Your task to perform on an android device: Open Youtube and go to "Your channel" Image 0: 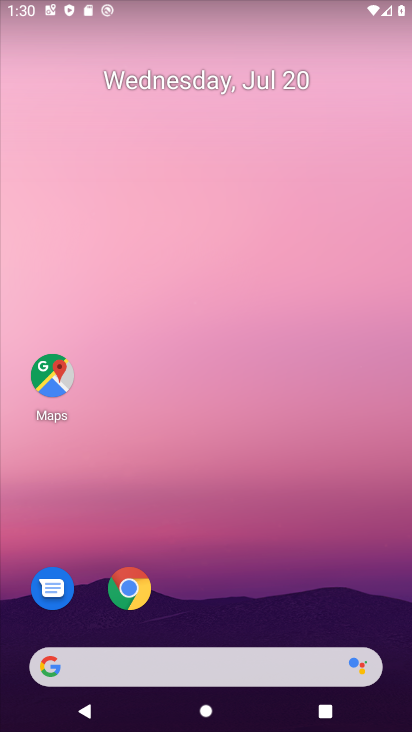
Step 0: drag from (373, 637) to (159, 0)
Your task to perform on an android device: Open Youtube and go to "Your channel" Image 1: 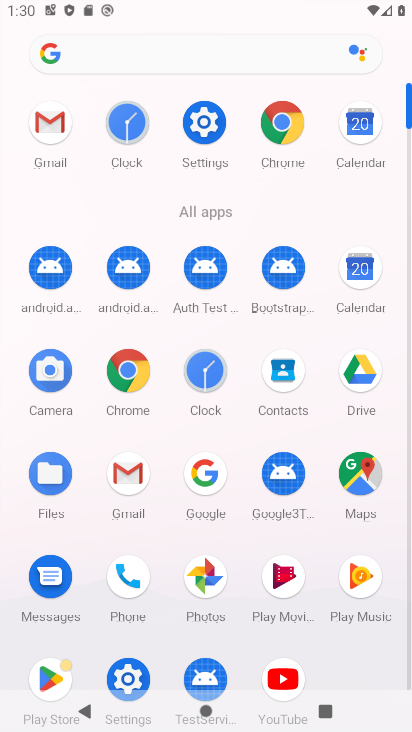
Step 1: click (290, 675)
Your task to perform on an android device: Open Youtube and go to "Your channel" Image 2: 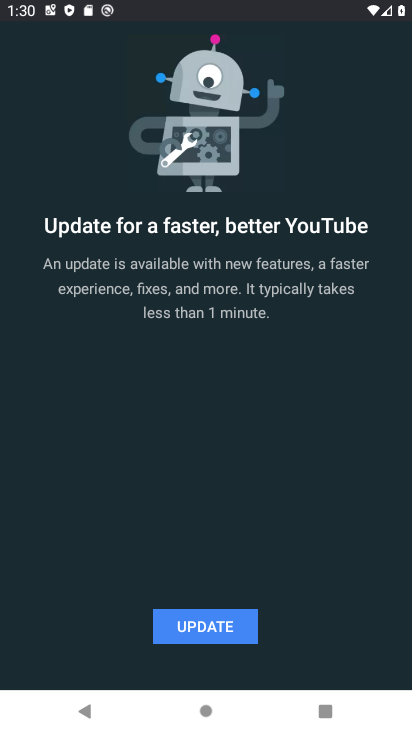
Step 2: click (229, 630)
Your task to perform on an android device: Open Youtube and go to "Your channel" Image 3: 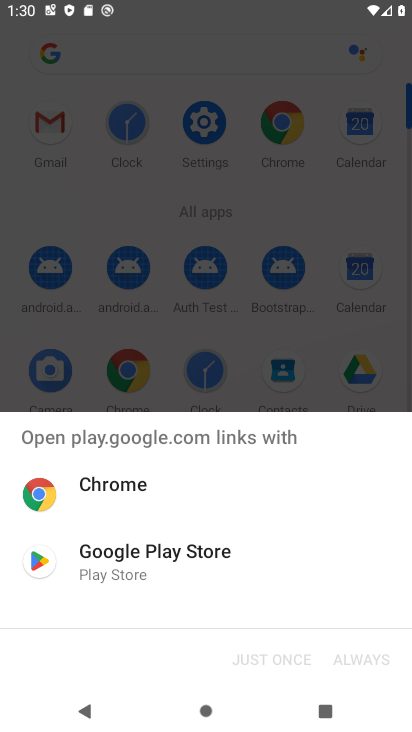
Step 3: click (55, 558)
Your task to perform on an android device: Open Youtube and go to "Your channel" Image 4: 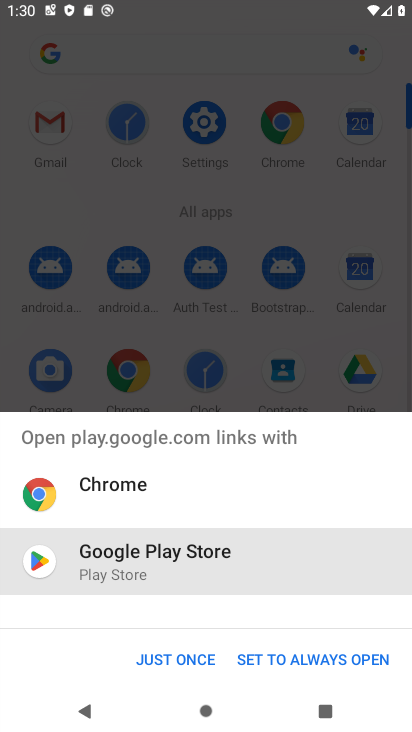
Step 4: click (181, 665)
Your task to perform on an android device: Open Youtube and go to "Your channel" Image 5: 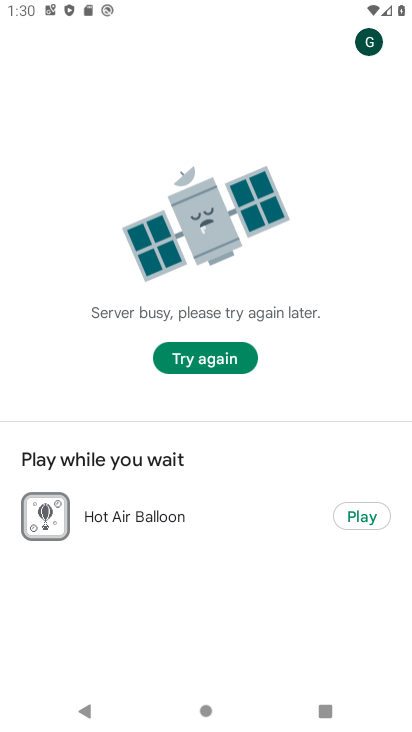
Step 5: task complete